Your task to perform on an android device: Open Youtube and go to "Your channel" Image 0: 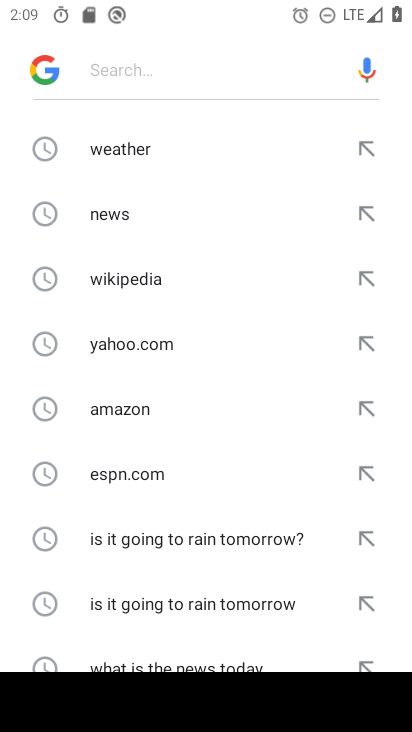
Step 0: press home button
Your task to perform on an android device: Open Youtube and go to "Your channel" Image 1: 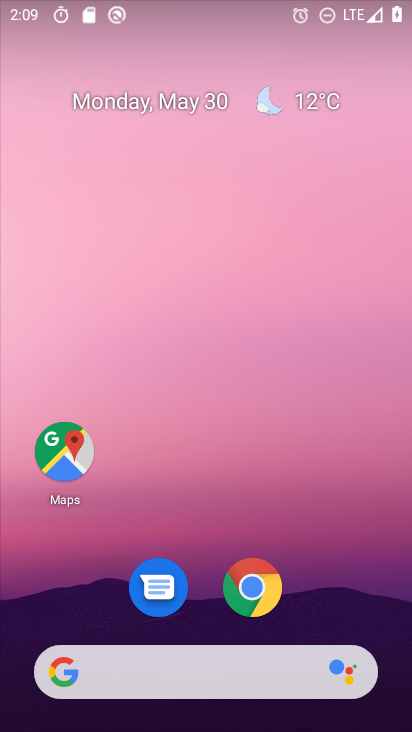
Step 1: click (407, 107)
Your task to perform on an android device: Open Youtube and go to "Your channel" Image 2: 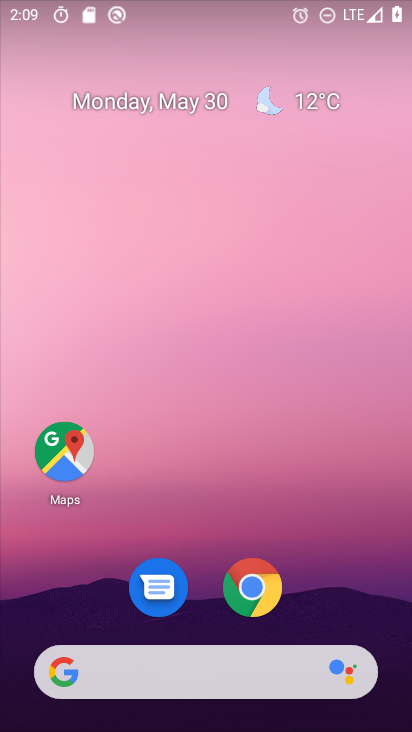
Step 2: drag from (315, 572) to (299, 80)
Your task to perform on an android device: Open Youtube and go to "Your channel" Image 3: 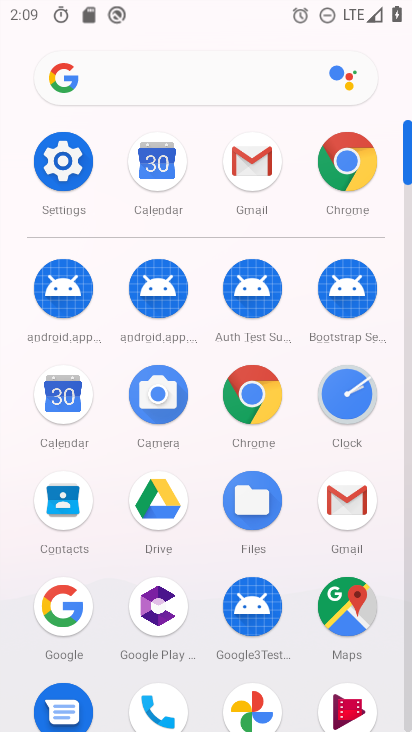
Step 3: drag from (221, 559) to (322, 116)
Your task to perform on an android device: Open Youtube and go to "Your channel" Image 4: 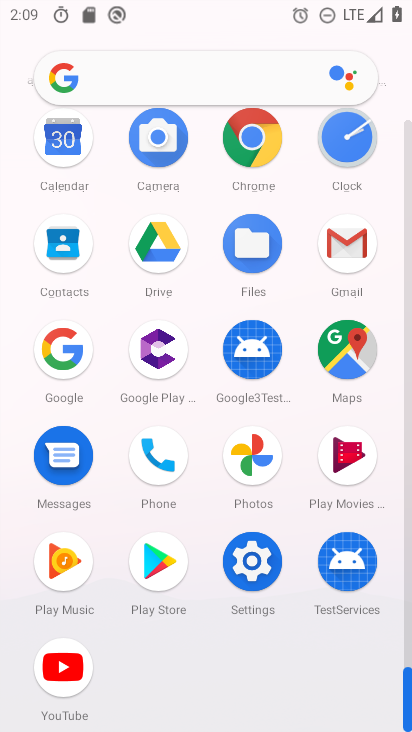
Step 4: click (70, 663)
Your task to perform on an android device: Open Youtube and go to "Your channel" Image 5: 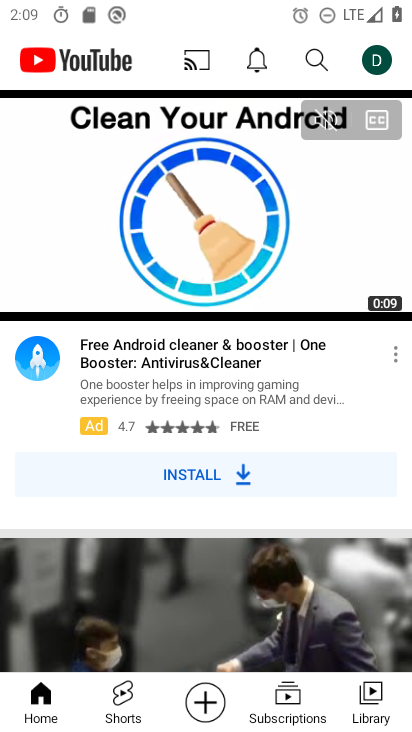
Step 5: click (373, 58)
Your task to perform on an android device: Open Youtube and go to "Your channel" Image 6: 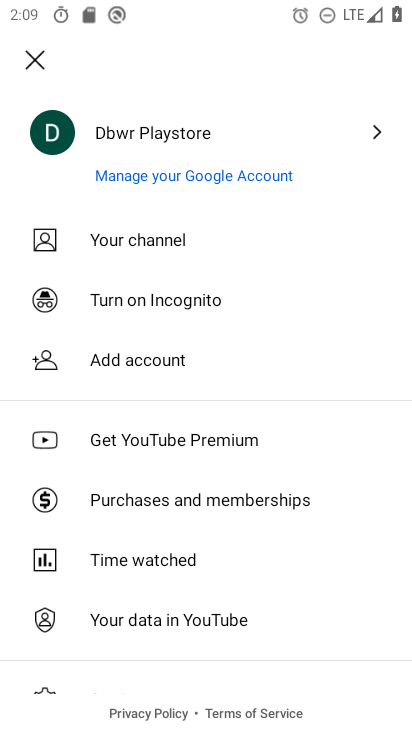
Step 6: click (185, 235)
Your task to perform on an android device: Open Youtube and go to "Your channel" Image 7: 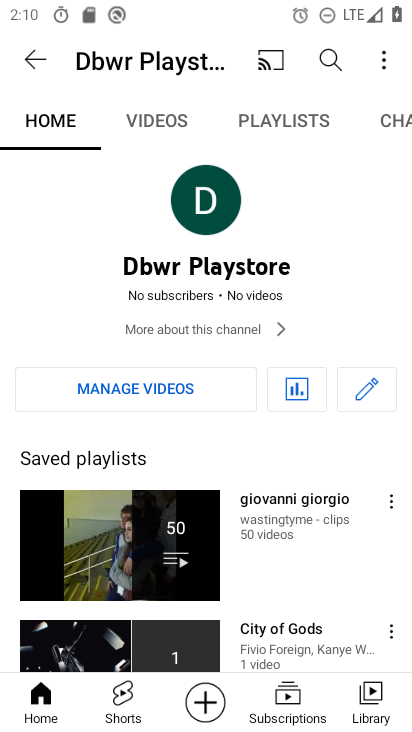
Step 7: task complete